Your task to perform on an android device: What time is it in San Francisco? Image 0: 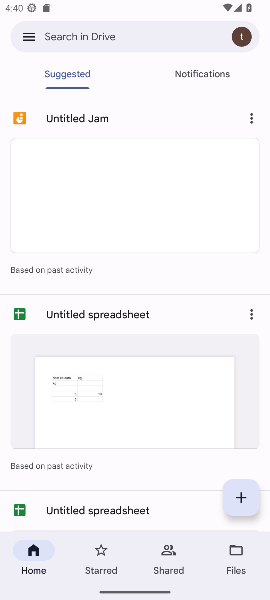
Step 0: press home button
Your task to perform on an android device: What time is it in San Francisco? Image 1: 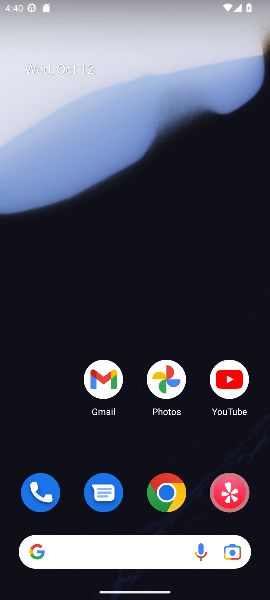
Step 1: click (158, 494)
Your task to perform on an android device: What time is it in San Francisco? Image 2: 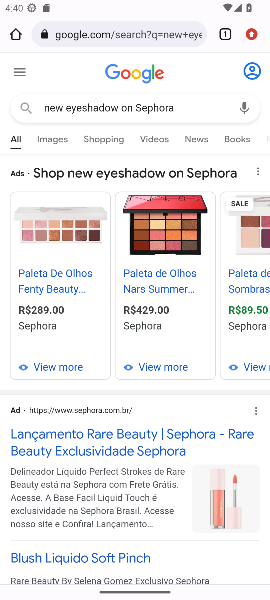
Step 2: click (174, 107)
Your task to perform on an android device: What time is it in San Francisco? Image 3: 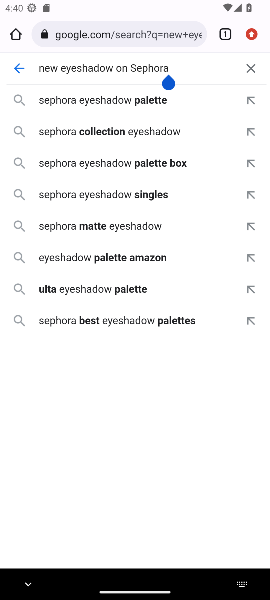
Step 3: click (251, 63)
Your task to perform on an android device: What time is it in San Francisco? Image 4: 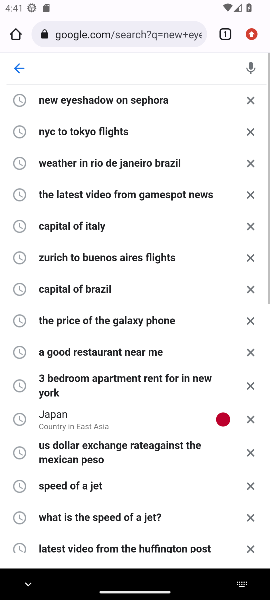
Step 4: type "time in francisco"
Your task to perform on an android device: What time is it in San Francisco? Image 5: 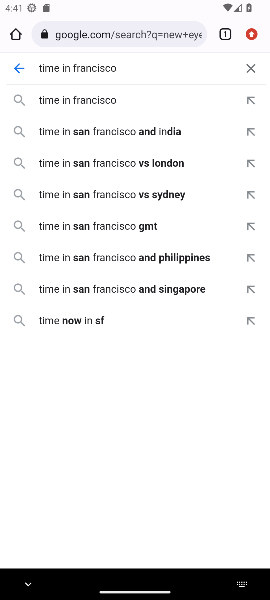
Step 5: click (87, 99)
Your task to perform on an android device: What time is it in San Francisco? Image 6: 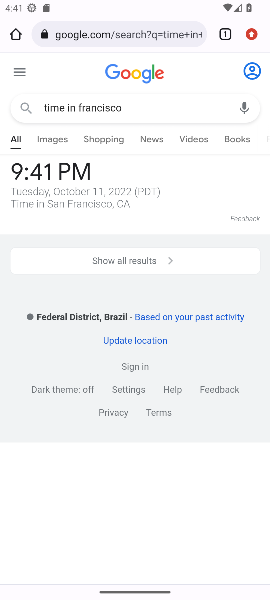
Step 6: task complete